Your task to perform on an android device: Set an alarm for 2pm Image 0: 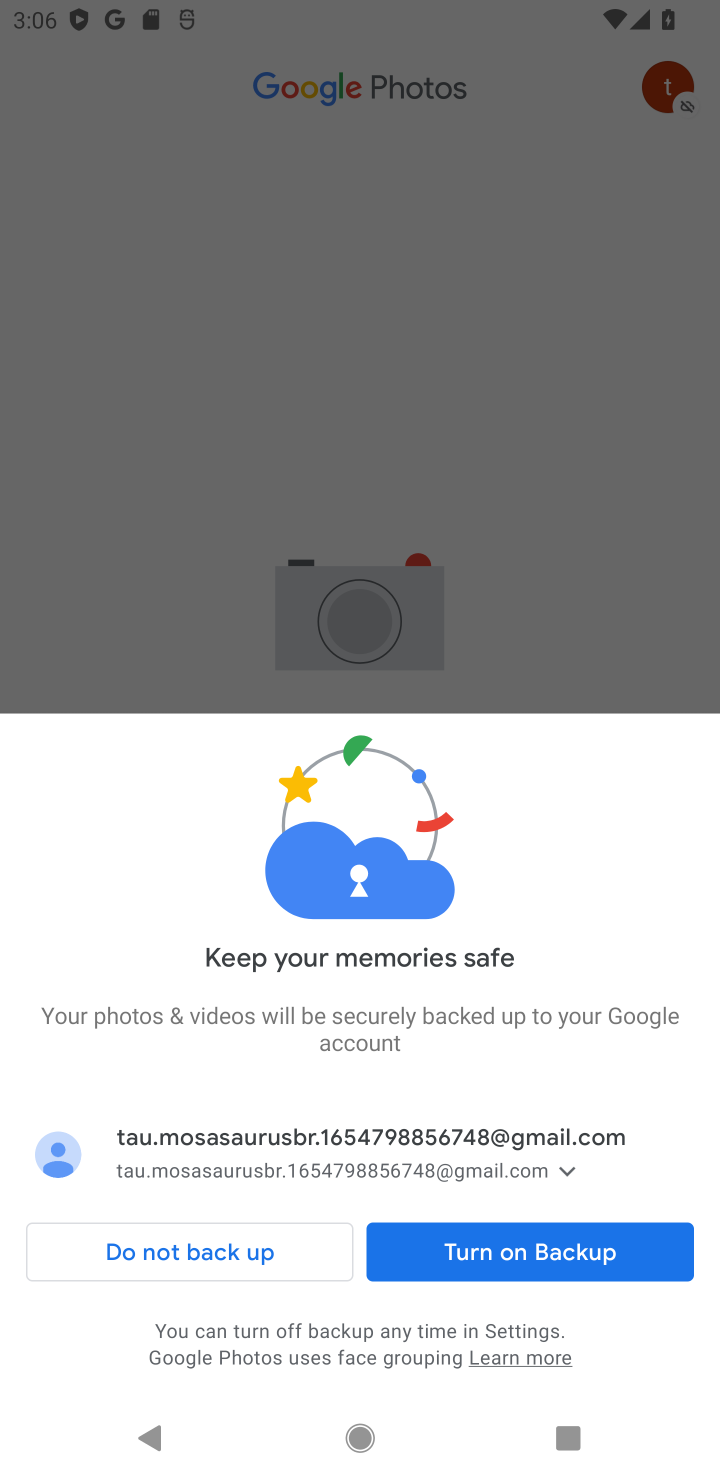
Step 0: press home button
Your task to perform on an android device: Set an alarm for 2pm Image 1: 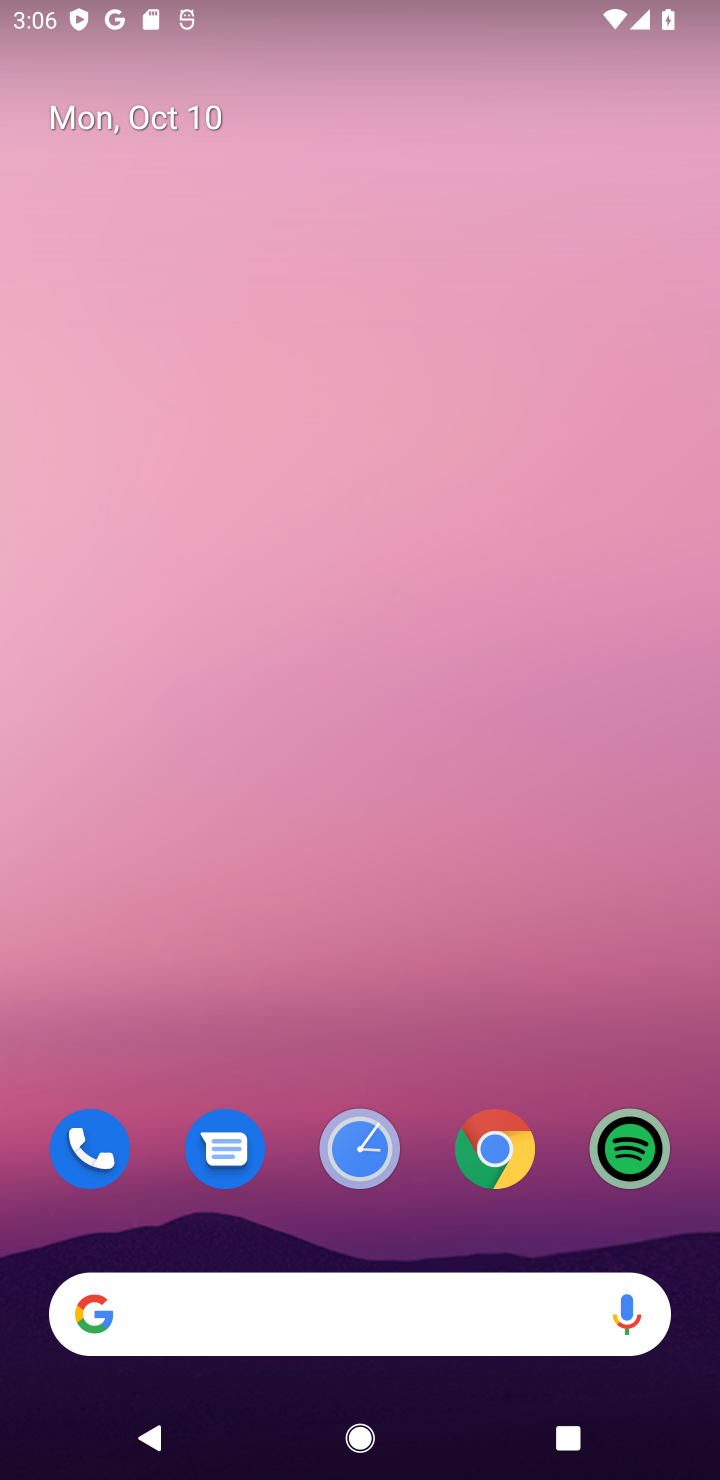
Step 1: click (349, 1149)
Your task to perform on an android device: Set an alarm for 2pm Image 2: 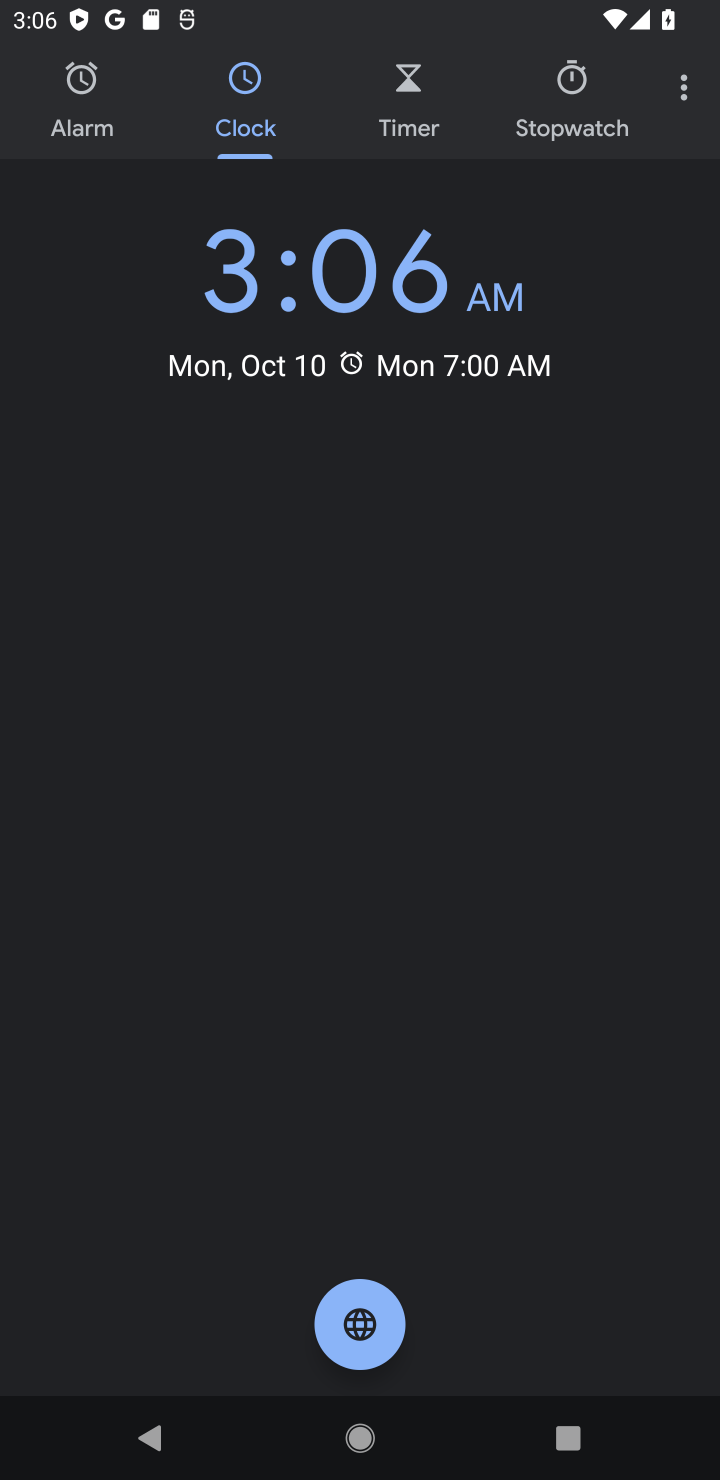
Step 2: click (118, 96)
Your task to perform on an android device: Set an alarm for 2pm Image 3: 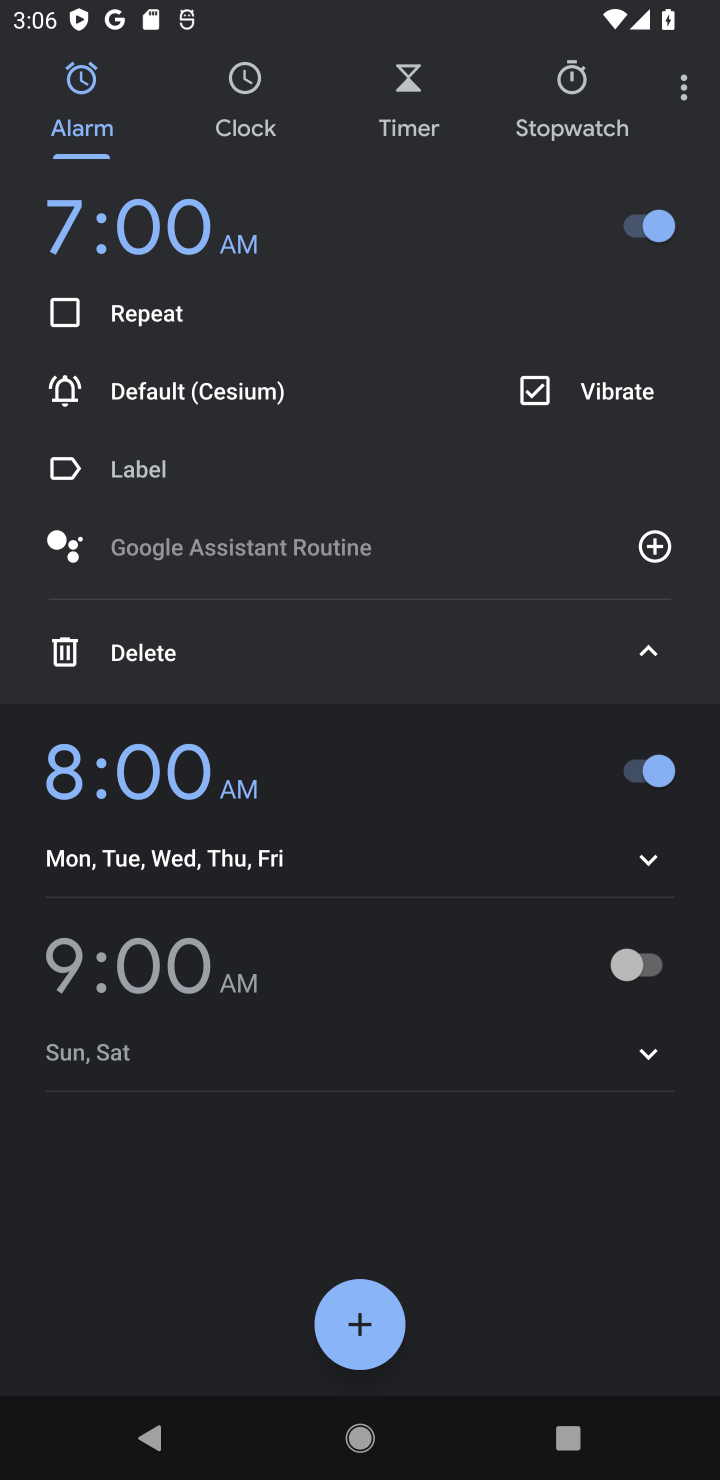
Step 3: click (364, 1343)
Your task to perform on an android device: Set an alarm for 2pm Image 4: 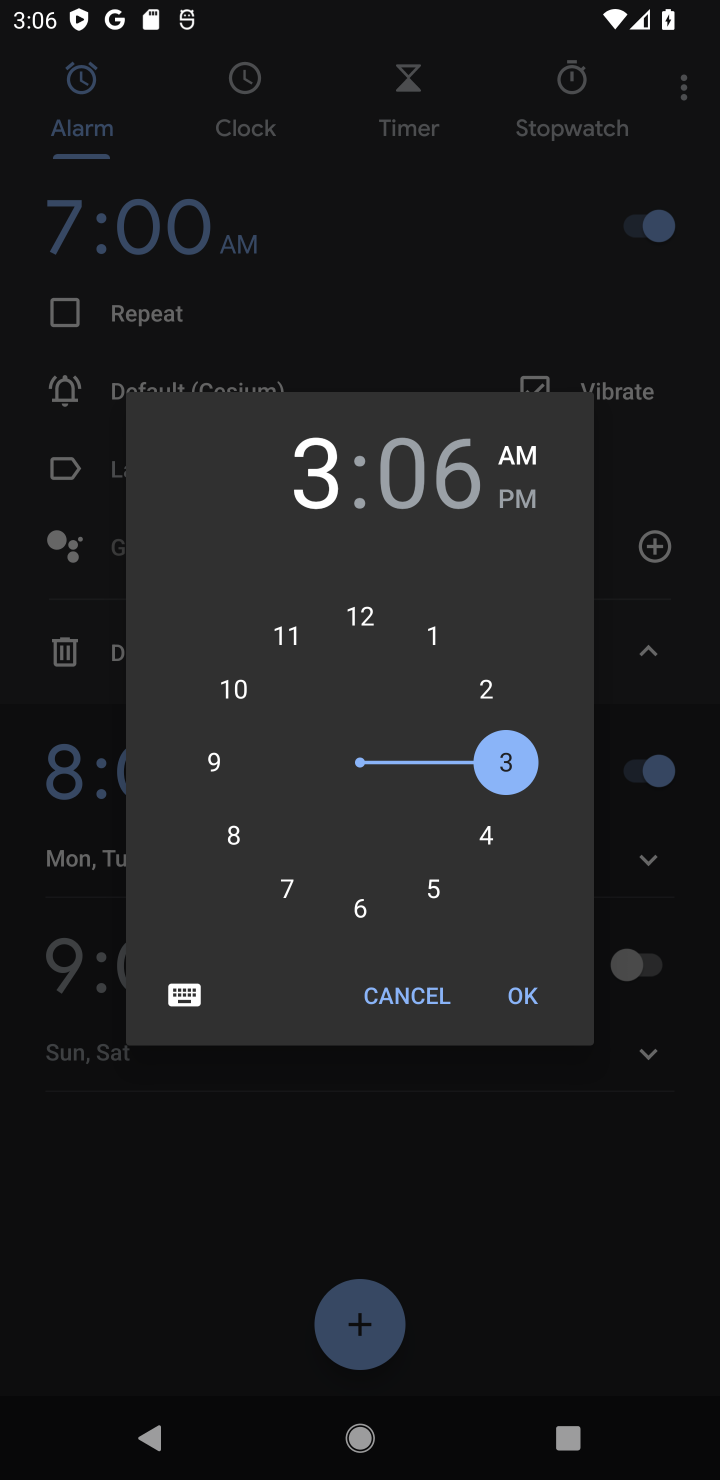
Step 4: click (499, 743)
Your task to perform on an android device: Set an alarm for 2pm Image 5: 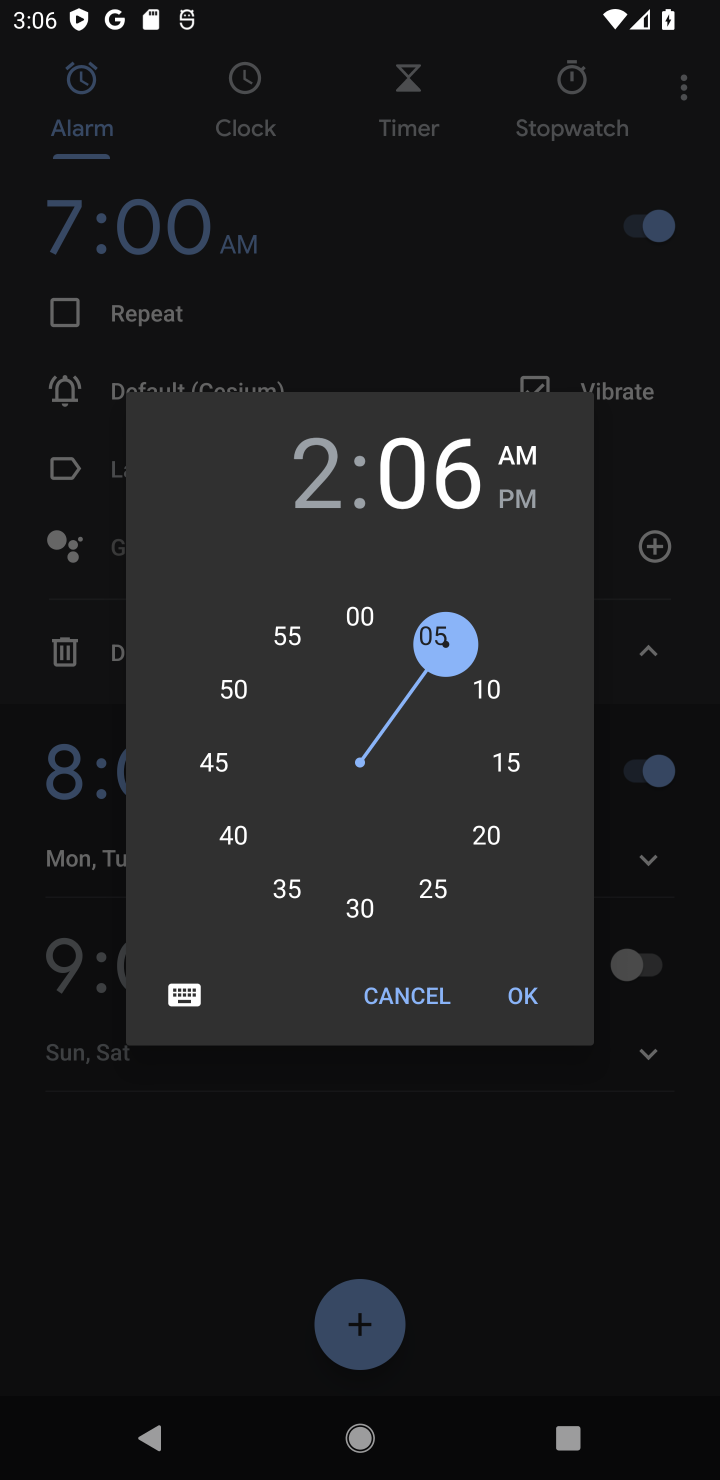
Step 5: click (368, 600)
Your task to perform on an android device: Set an alarm for 2pm Image 6: 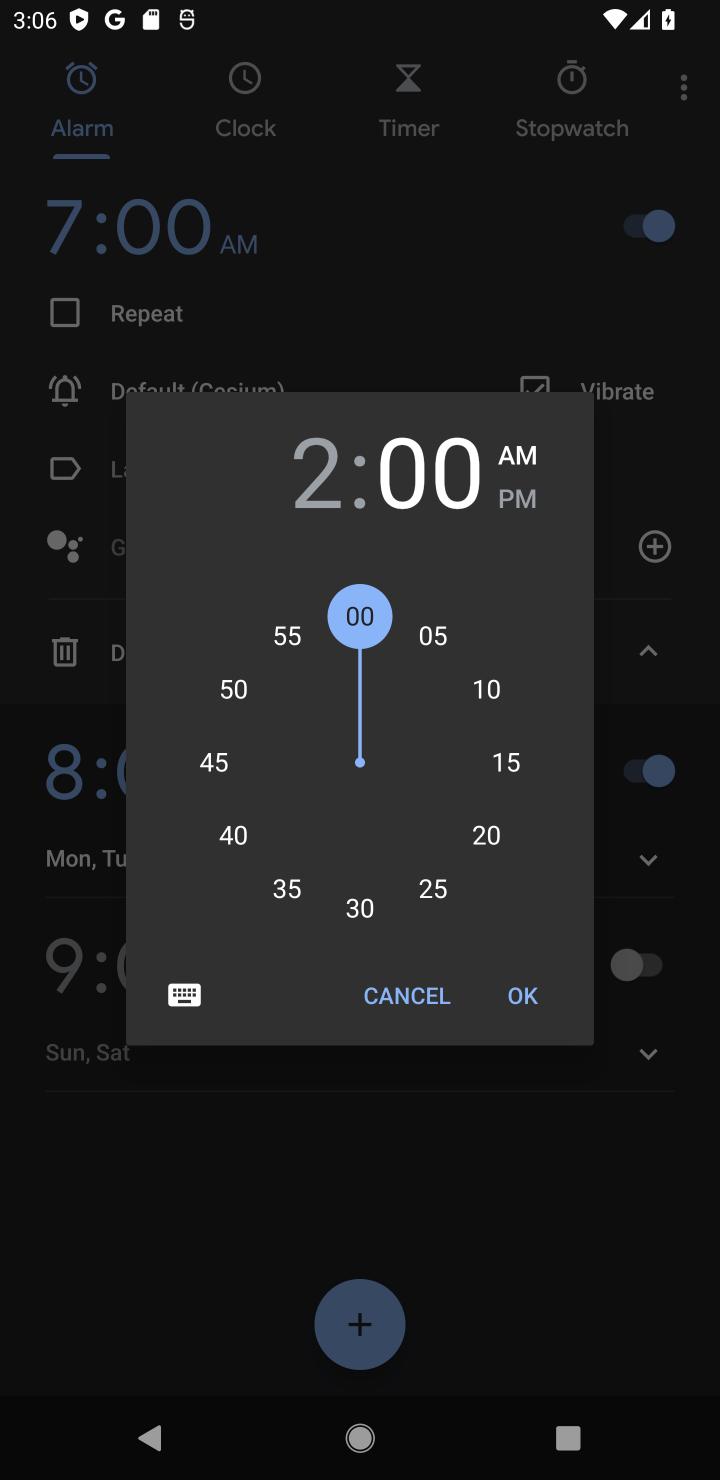
Step 6: click (522, 515)
Your task to perform on an android device: Set an alarm for 2pm Image 7: 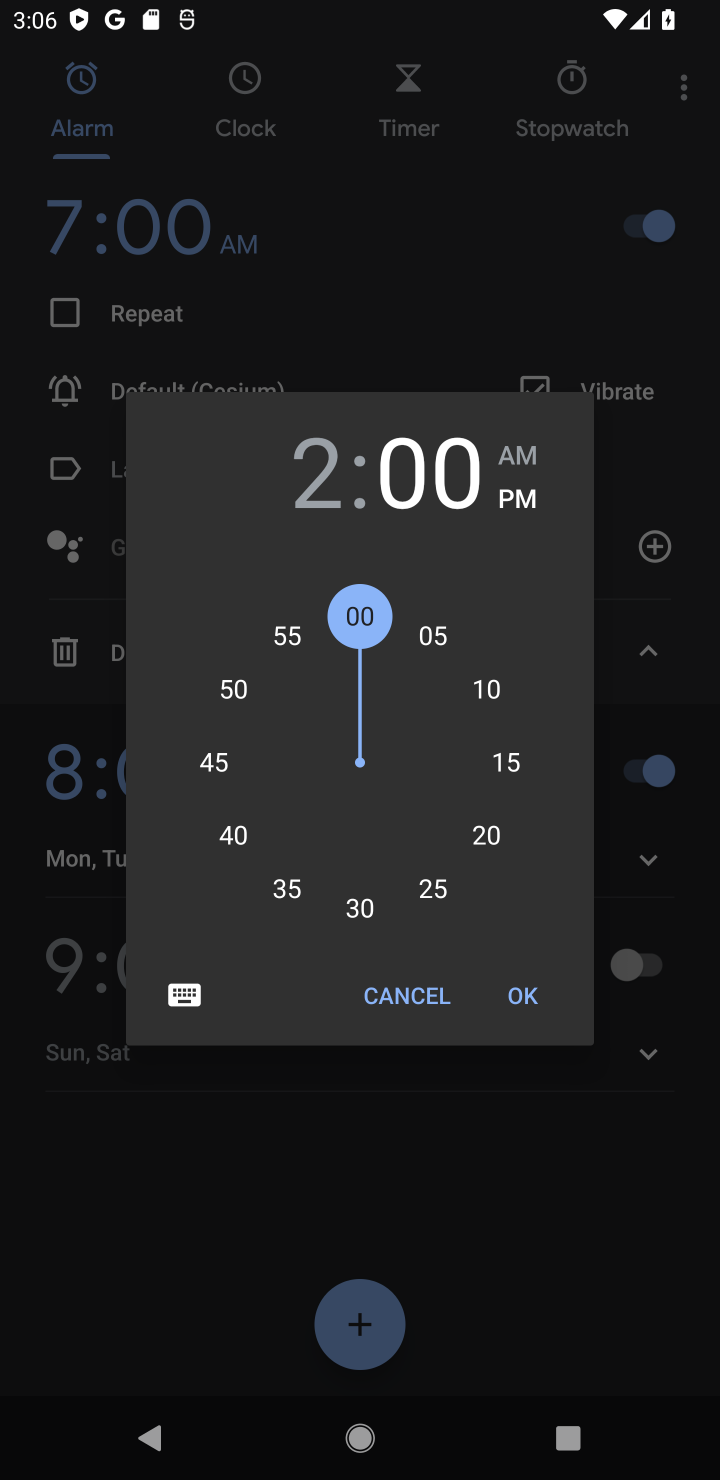
Step 7: click (540, 1003)
Your task to perform on an android device: Set an alarm for 2pm Image 8: 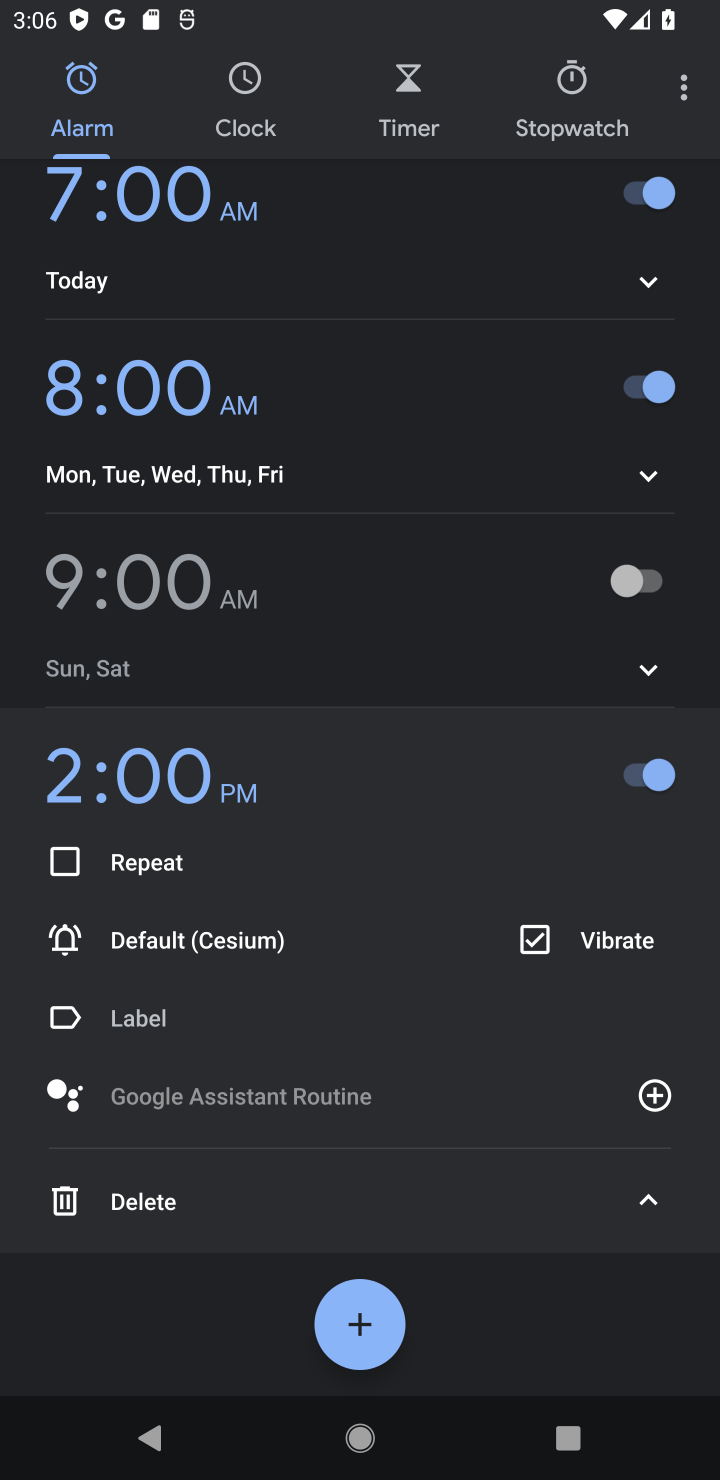
Step 8: task complete